Your task to perform on an android device: Open CNN.com Image 0: 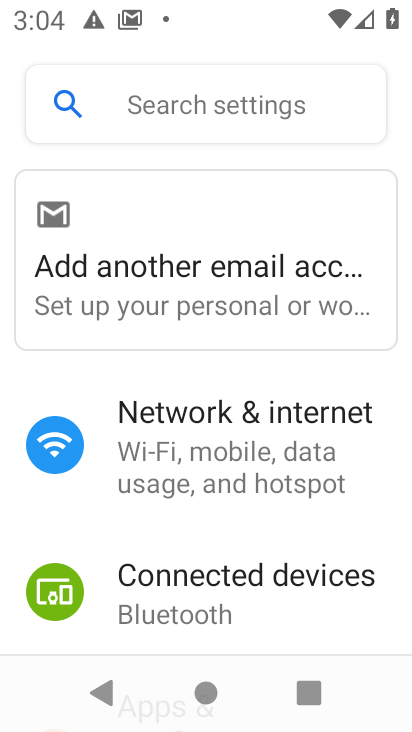
Step 0: press home button
Your task to perform on an android device: Open CNN.com Image 1: 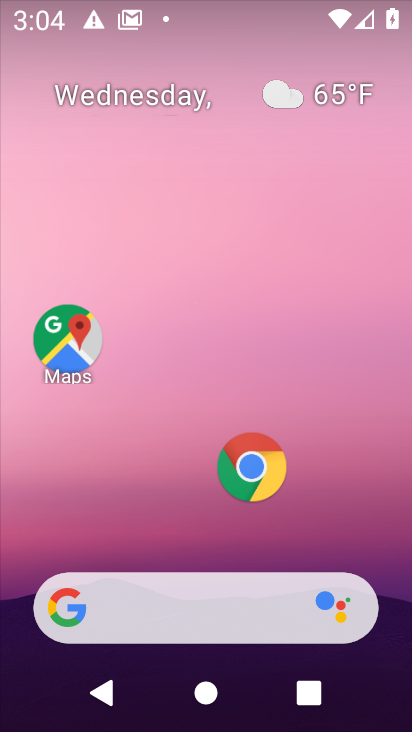
Step 1: task complete